Your task to perform on an android device: open the mobile data screen to see how much data has been used Image 0: 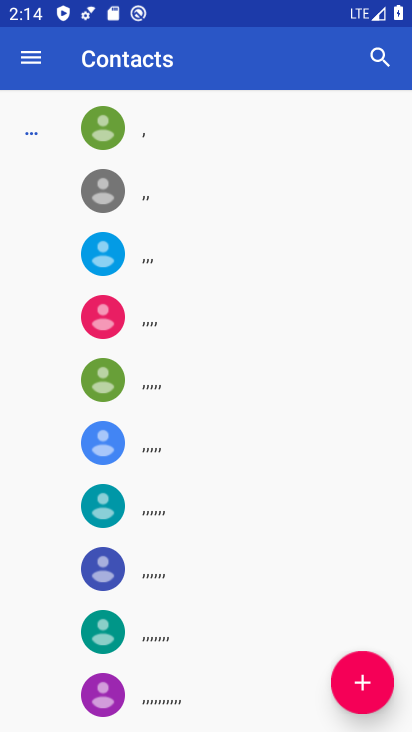
Step 0: press home button
Your task to perform on an android device: open the mobile data screen to see how much data has been used Image 1: 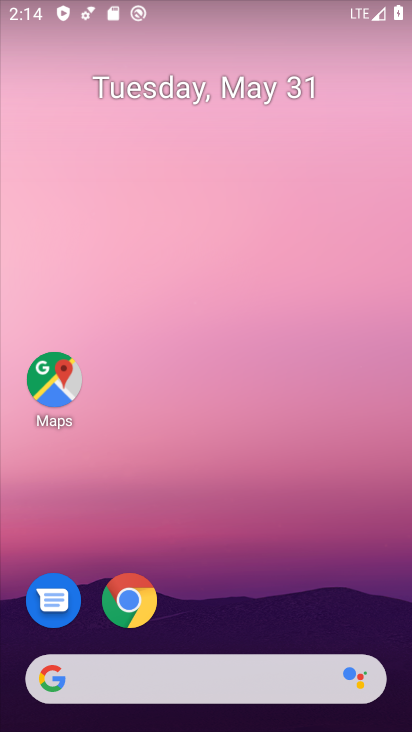
Step 1: drag from (222, 621) to (210, 132)
Your task to perform on an android device: open the mobile data screen to see how much data has been used Image 2: 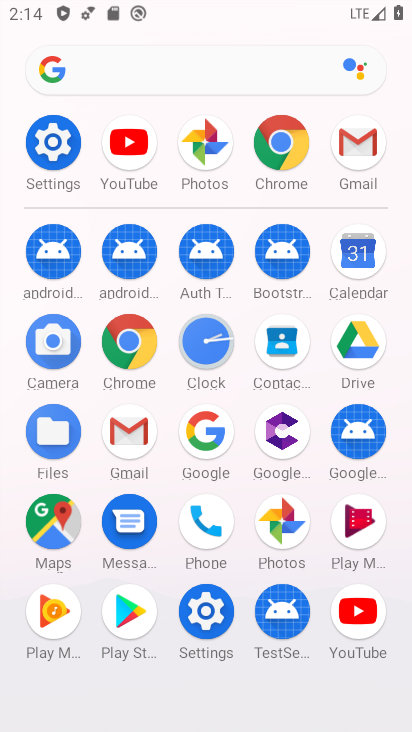
Step 2: click (48, 137)
Your task to perform on an android device: open the mobile data screen to see how much data has been used Image 3: 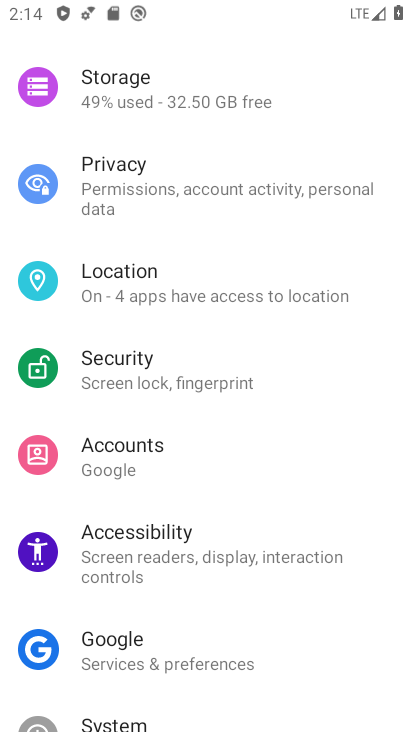
Step 3: drag from (197, 150) to (78, 721)
Your task to perform on an android device: open the mobile data screen to see how much data has been used Image 4: 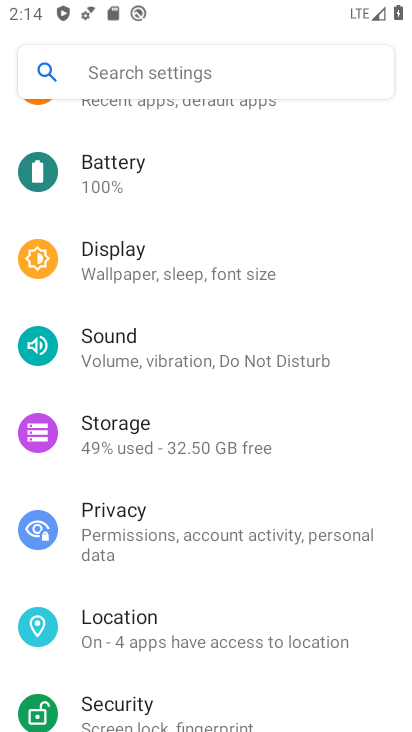
Step 4: drag from (186, 527) to (234, 721)
Your task to perform on an android device: open the mobile data screen to see how much data has been used Image 5: 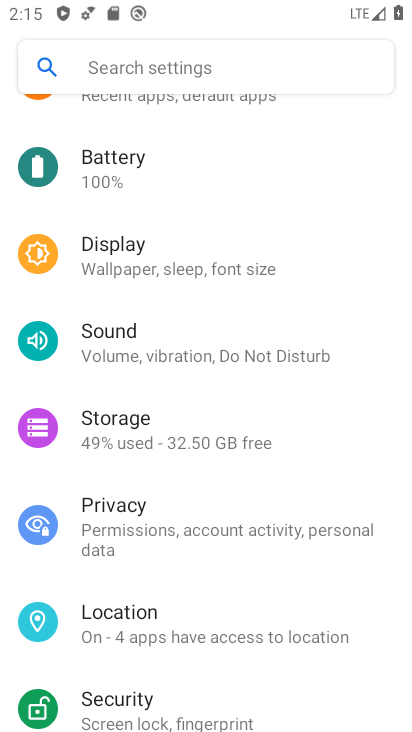
Step 5: drag from (153, 681) to (103, 719)
Your task to perform on an android device: open the mobile data screen to see how much data has been used Image 6: 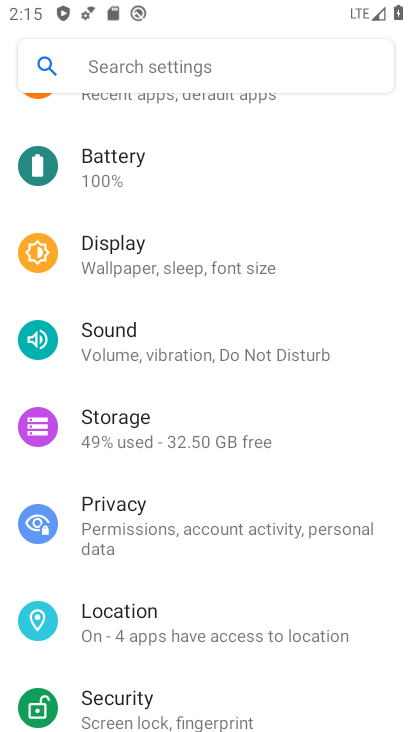
Step 6: drag from (181, 554) to (191, 671)
Your task to perform on an android device: open the mobile data screen to see how much data has been used Image 7: 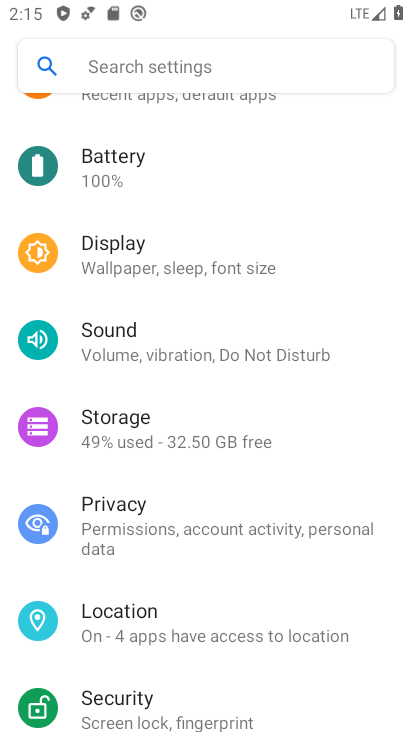
Step 7: drag from (213, 403) to (209, 700)
Your task to perform on an android device: open the mobile data screen to see how much data has been used Image 8: 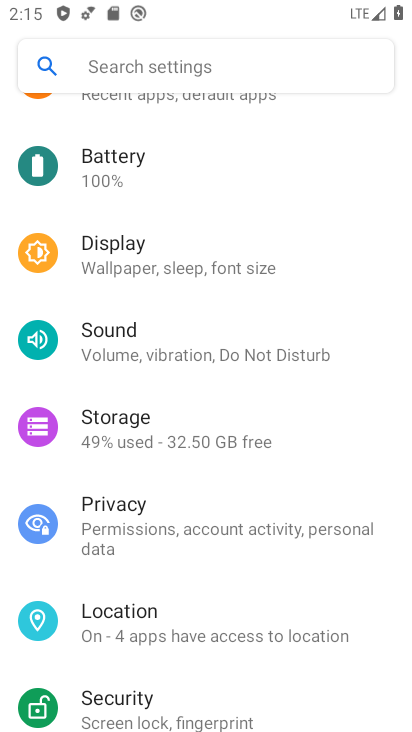
Step 8: drag from (163, 131) to (171, 692)
Your task to perform on an android device: open the mobile data screen to see how much data has been used Image 9: 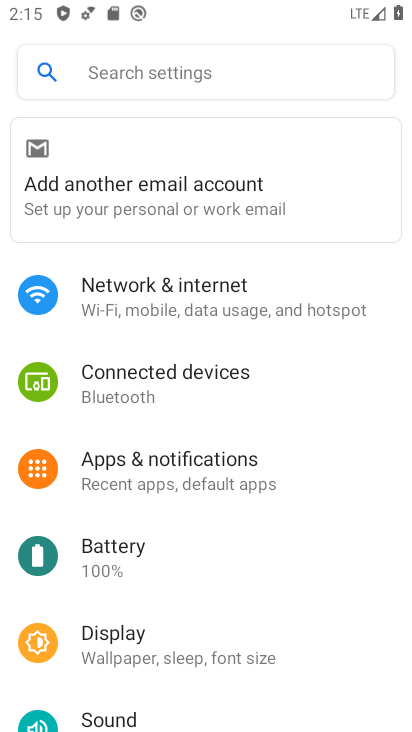
Step 9: click (210, 304)
Your task to perform on an android device: open the mobile data screen to see how much data has been used Image 10: 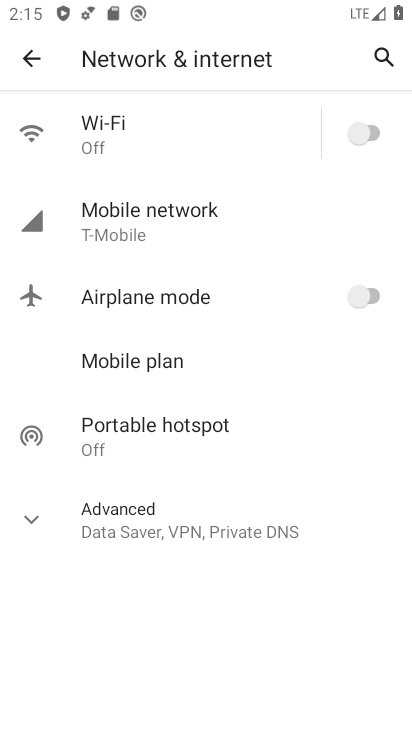
Step 10: click (190, 221)
Your task to perform on an android device: open the mobile data screen to see how much data has been used Image 11: 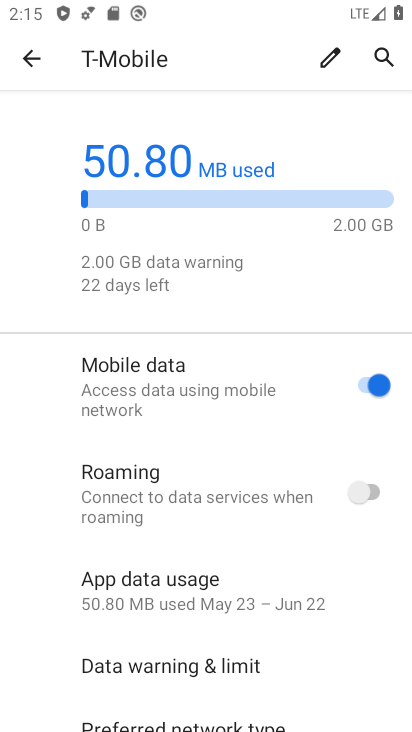
Step 11: click (219, 590)
Your task to perform on an android device: open the mobile data screen to see how much data has been used Image 12: 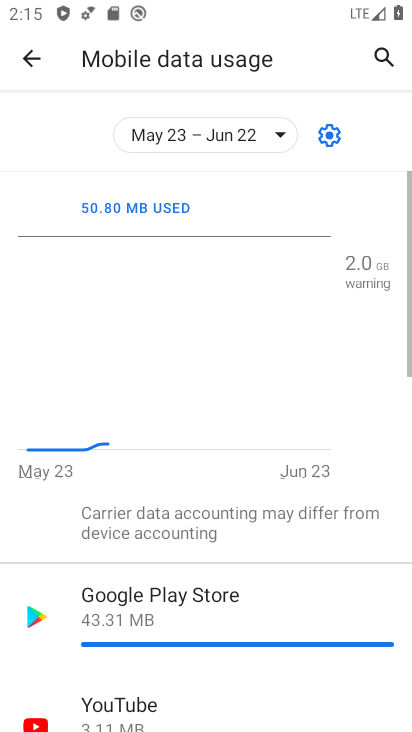
Step 12: task complete